Your task to perform on an android device: change the clock display to show seconds Image 0: 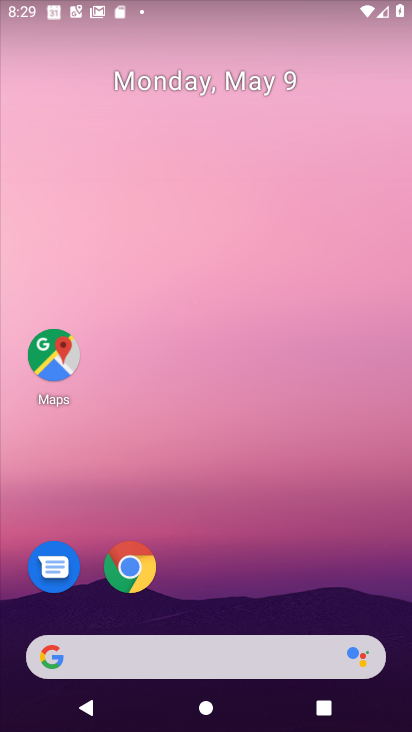
Step 0: drag from (189, 585) to (245, 126)
Your task to perform on an android device: change the clock display to show seconds Image 1: 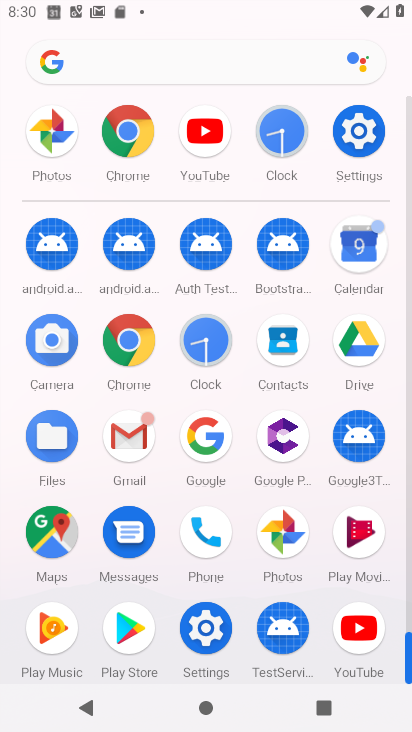
Step 1: click (206, 347)
Your task to perform on an android device: change the clock display to show seconds Image 2: 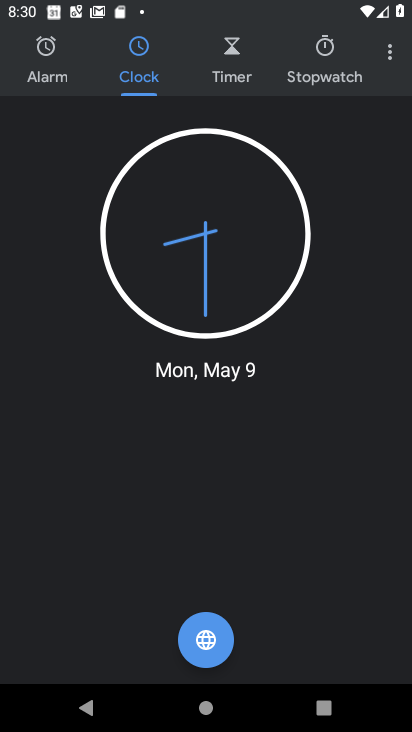
Step 2: click (394, 61)
Your task to perform on an android device: change the clock display to show seconds Image 3: 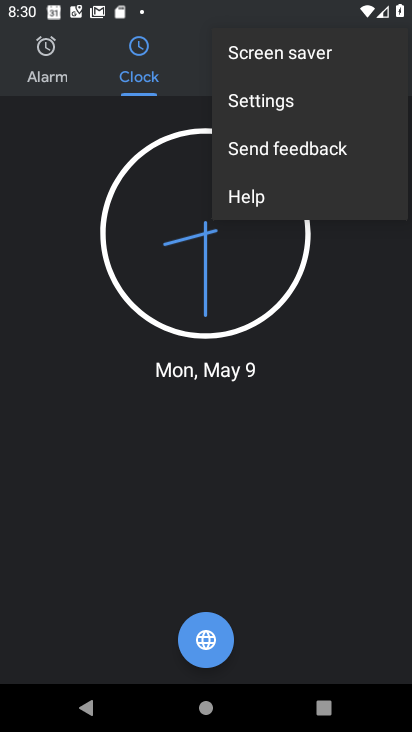
Step 3: click (278, 106)
Your task to perform on an android device: change the clock display to show seconds Image 4: 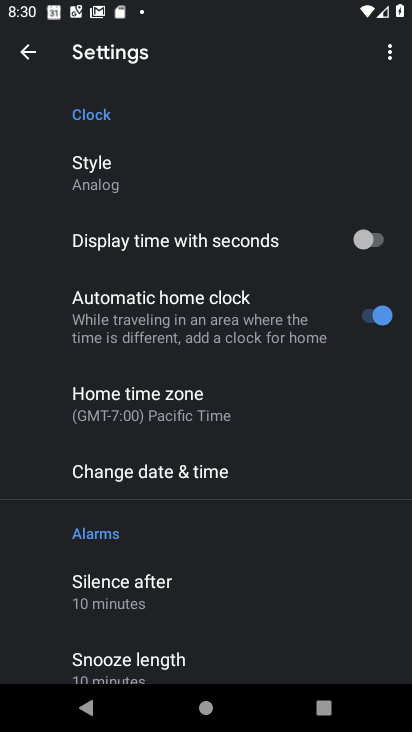
Step 4: click (257, 235)
Your task to perform on an android device: change the clock display to show seconds Image 5: 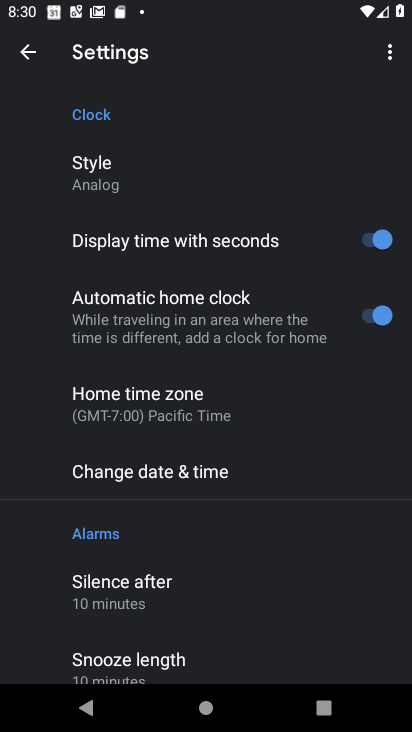
Step 5: task complete